Your task to perform on an android device: Open notification settings Image 0: 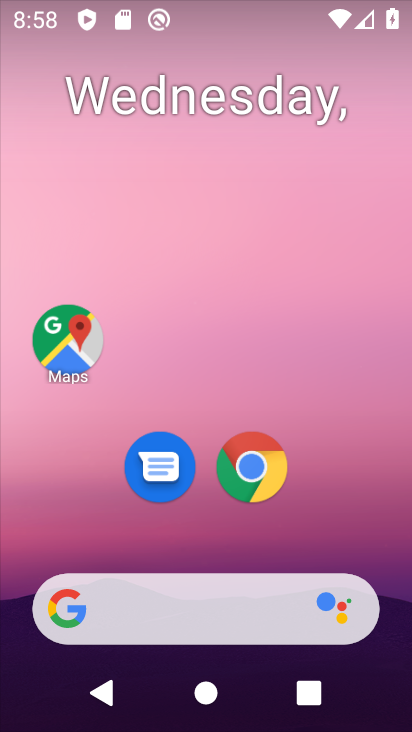
Step 0: drag from (247, 579) to (288, 0)
Your task to perform on an android device: Open notification settings Image 1: 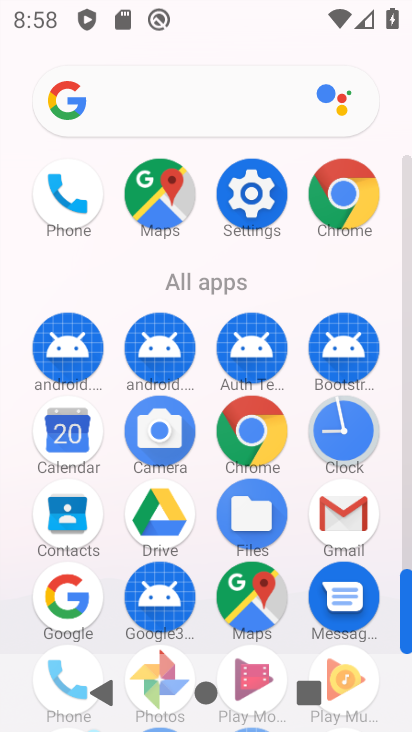
Step 1: drag from (268, 484) to (310, 121)
Your task to perform on an android device: Open notification settings Image 2: 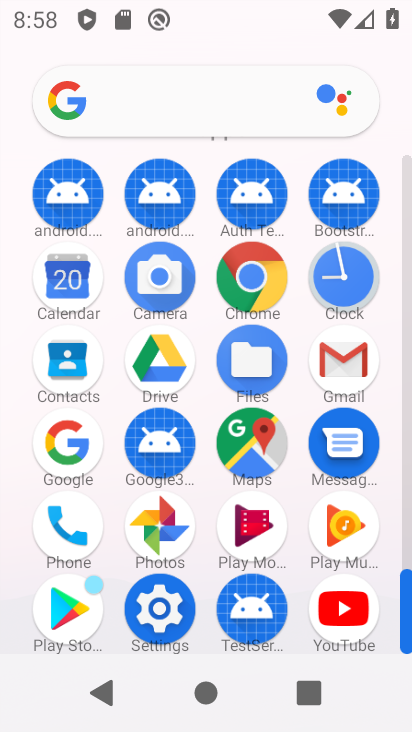
Step 2: click (166, 635)
Your task to perform on an android device: Open notification settings Image 3: 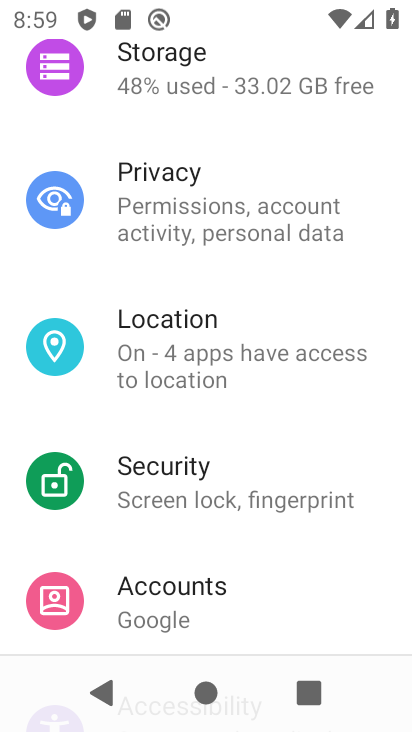
Step 3: drag from (212, 218) to (266, 635)
Your task to perform on an android device: Open notification settings Image 4: 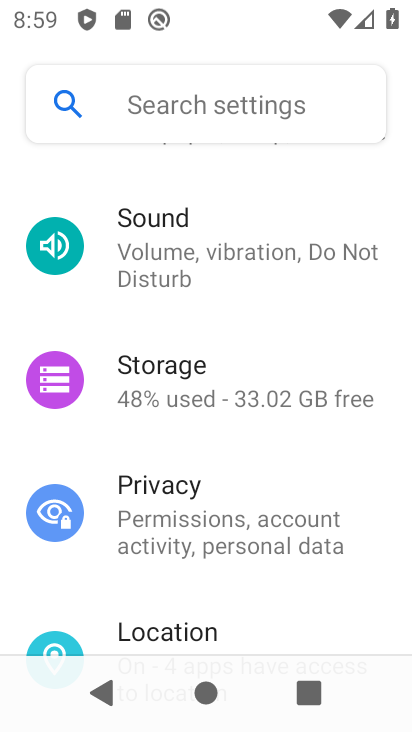
Step 4: drag from (311, 270) to (300, 612)
Your task to perform on an android device: Open notification settings Image 5: 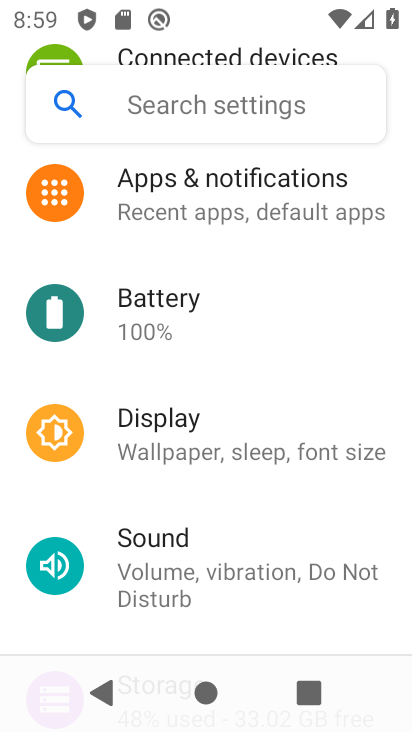
Step 5: drag from (304, 326) to (296, 582)
Your task to perform on an android device: Open notification settings Image 6: 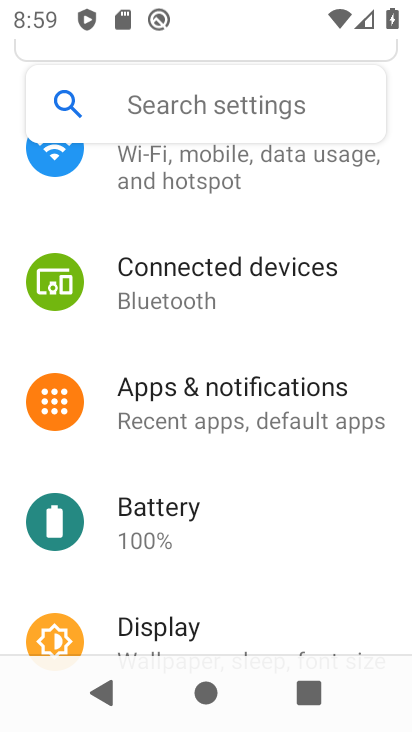
Step 6: drag from (267, 329) to (287, 569)
Your task to perform on an android device: Open notification settings Image 7: 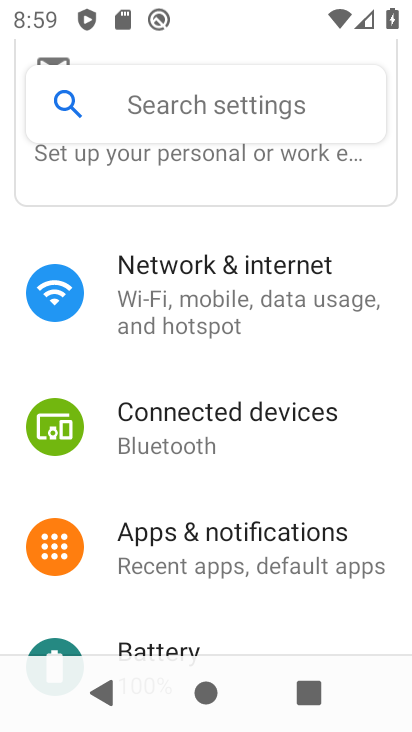
Step 7: drag from (262, 345) to (281, 529)
Your task to perform on an android device: Open notification settings Image 8: 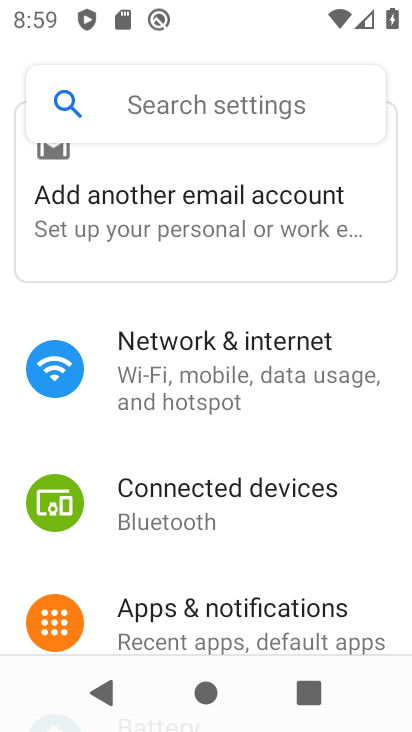
Step 8: click (209, 611)
Your task to perform on an android device: Open notification settings Image 9: 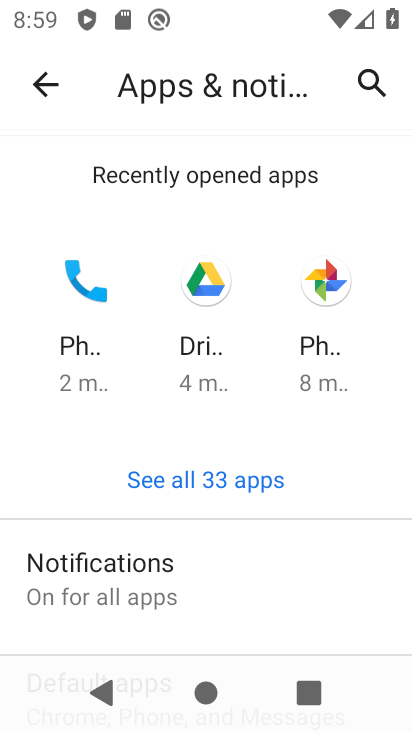
Step 9: drag from (215, 577) to (244, 252)
Your task to perform on an android device: Open notification settings Image 10: 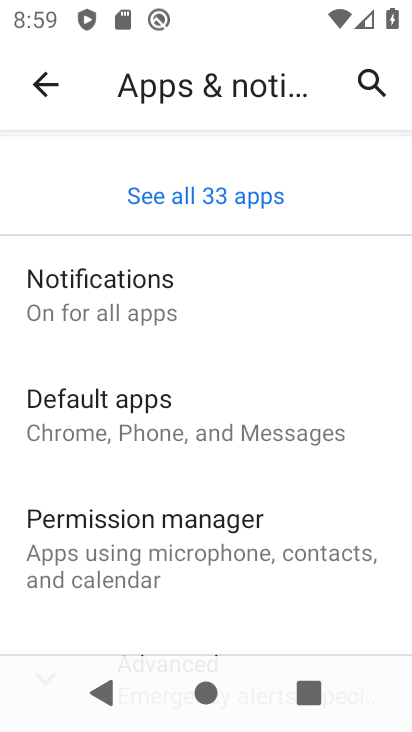
Step 10: click (137, 308)
Your task to perform on an android device: Open notification settings Image 11: 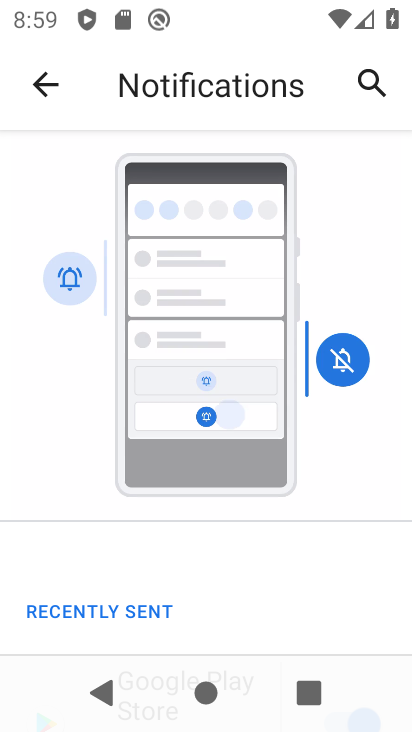
Step 11: task complete